Your task to perform on an android device: check storage Image 0: 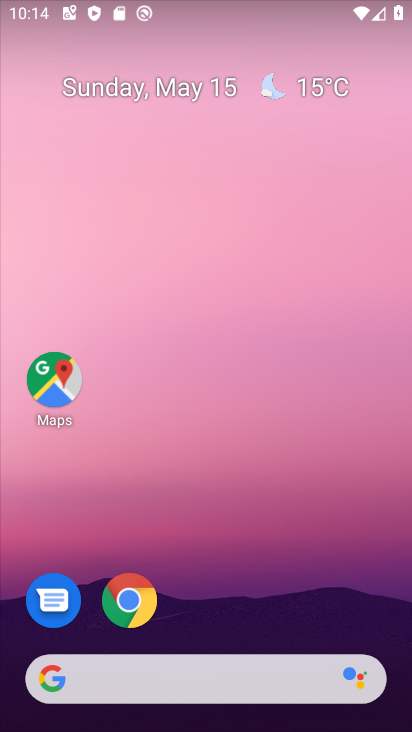
Step 0: drag from (363, 585) to (364, 159)
Your task to perform on an android device: check storage Image 1: 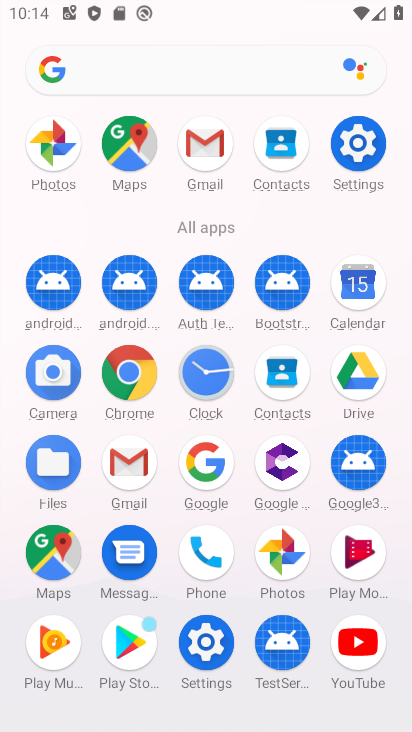
Step 1: click (366, 150)
Your task to perform on an android device: check storage Image 2: 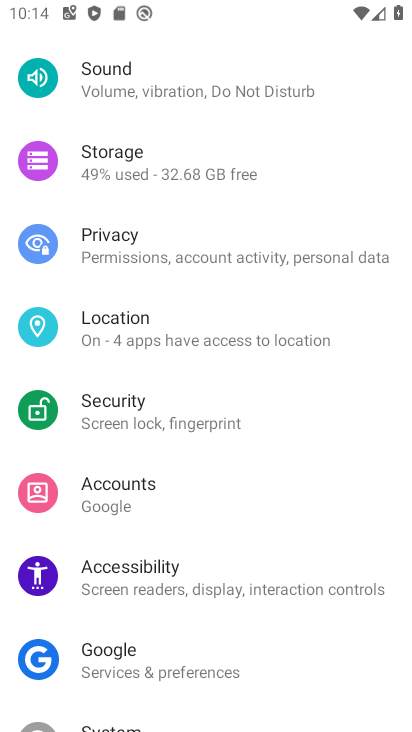
Step 2: click (176, 157)
Your task to perform on an android device: check storage Image 3: 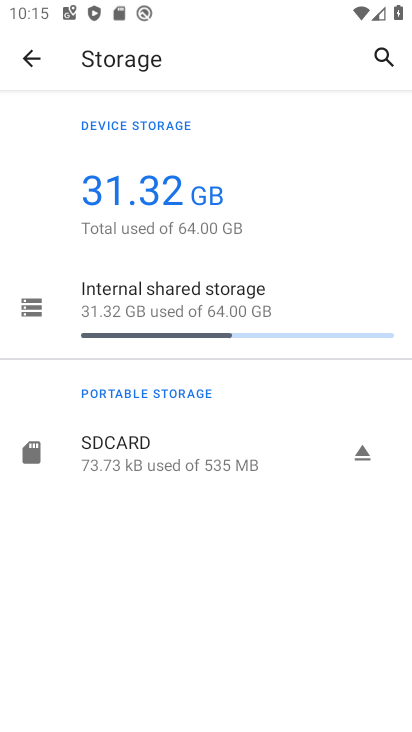
Step 3: task complete